Your task to perform on an android device: Open Chrome and go to settings Image 0: 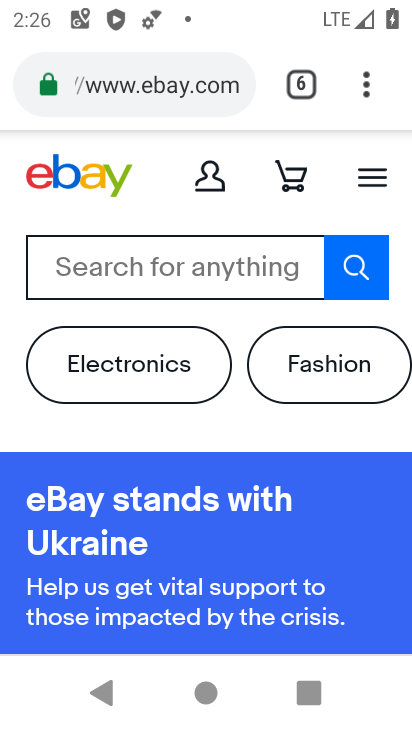
Step 0: press home button
Your task to perform on an android device: Open Chrome and go to settings Image 1: 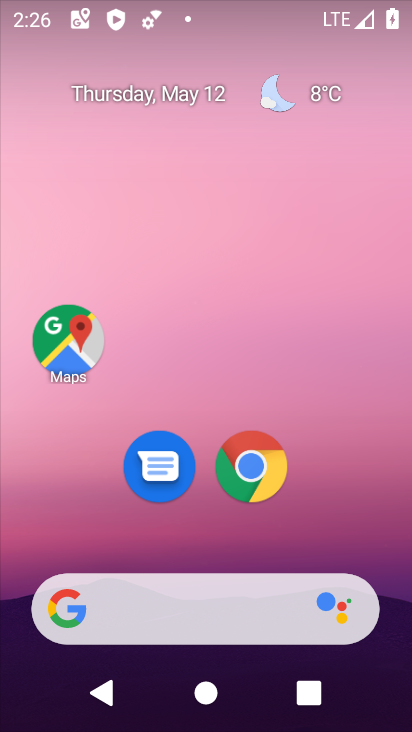
Step 1: click (236, 477)
Your task to perform on an android device: Open Chrome and go to settings Image 2: 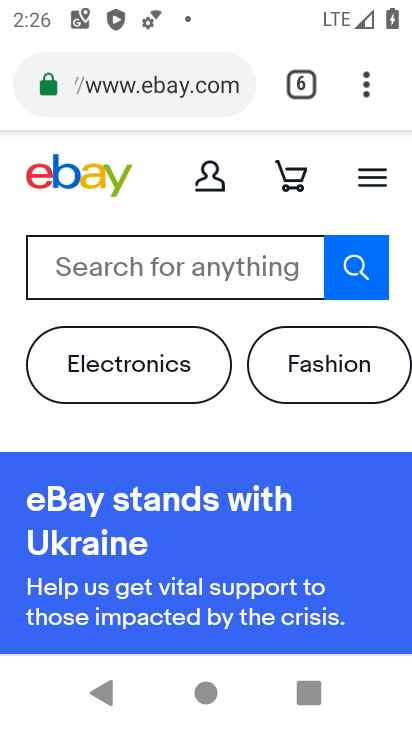
Step 2: click (359, 81)
Your task to perform on an android device: Open Chrome and go to settings Image 3: 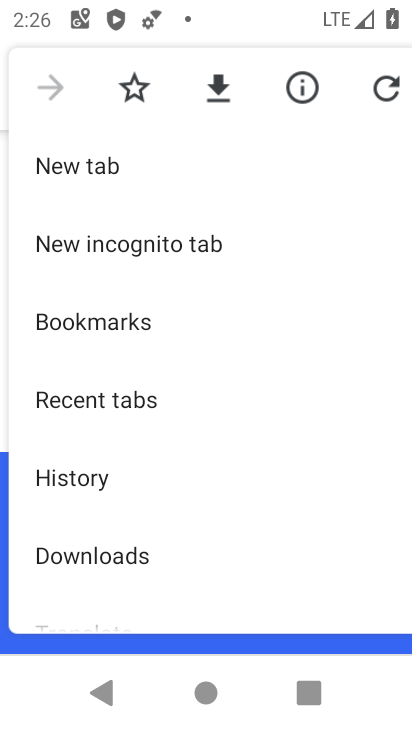
Step 3: drag from (117, 535) to (138, 198)
Your task to perform on an android device: Open Chrome and go to settings Image 4: 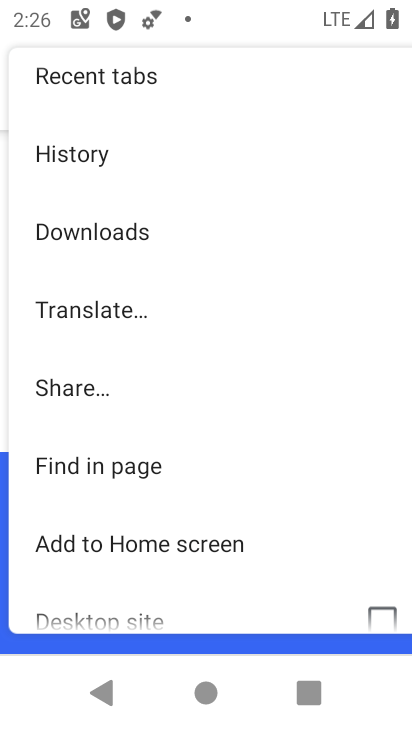
Step 4: drag from (92, 539) to (108, 206)
Your task to perform on an android device: Open Chrome and go to settings Image 5: 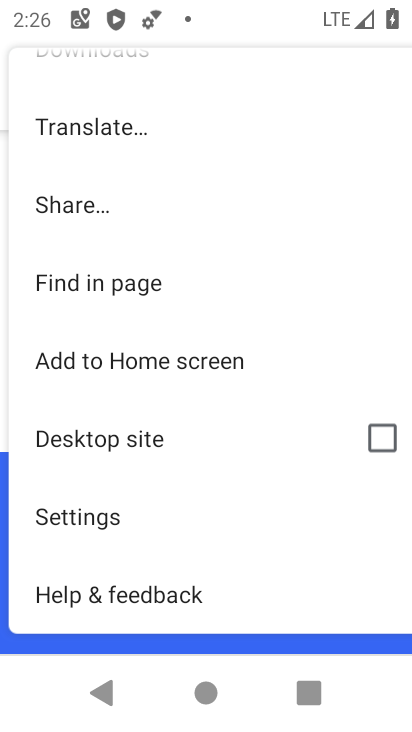
Step 5: click (87, 520)
Your task to perform on an android device: Open Chrome and go to settings Image 6: 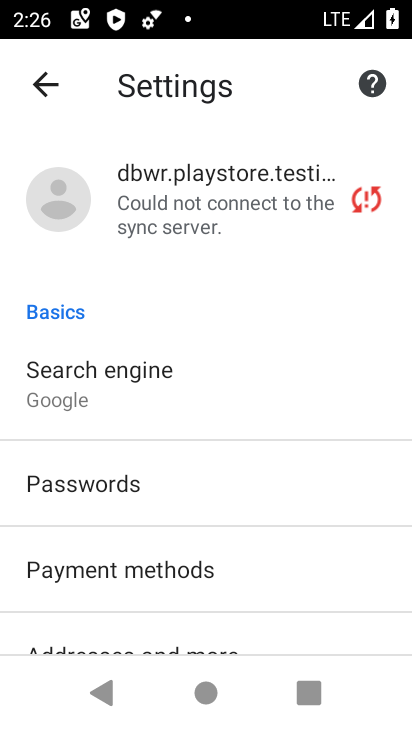
Step 6: task complete